Your task to perform on an android device: check battery use Image 0: 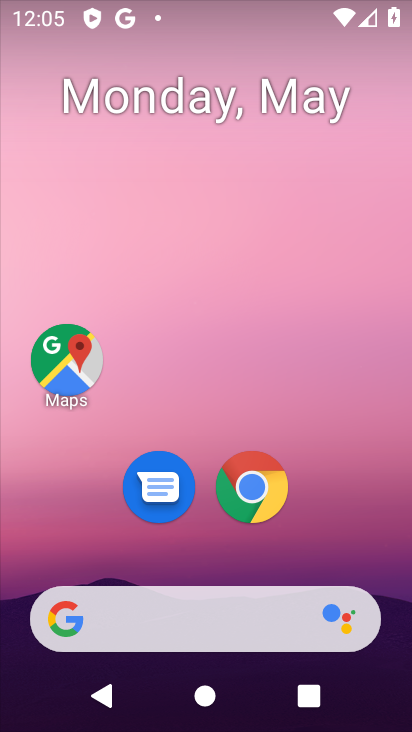
Step 0: drag from (206, 560) to (248, 68)
Your task to perform on an android device: check battery use Image 1: 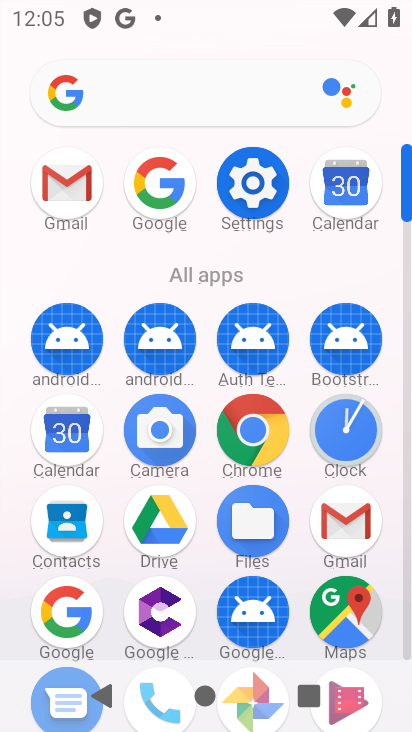
Step 1: click (252, 182)
Your task to perform on an android device: check battery use Image 2: 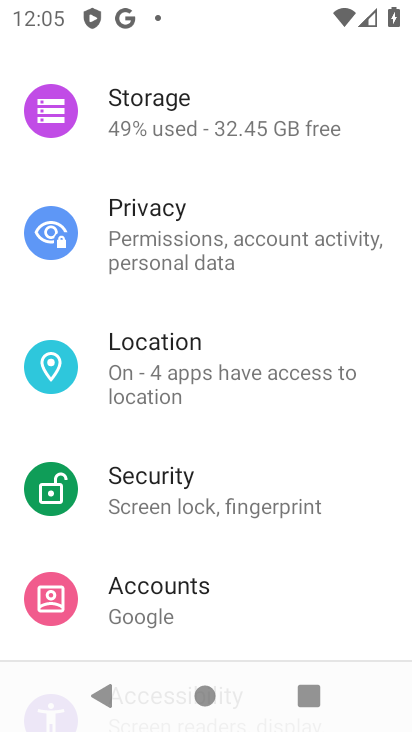
Step 2: drag from (207, 219) to (290, 588)
Your task to perform on an android device: check battery use Image 3: 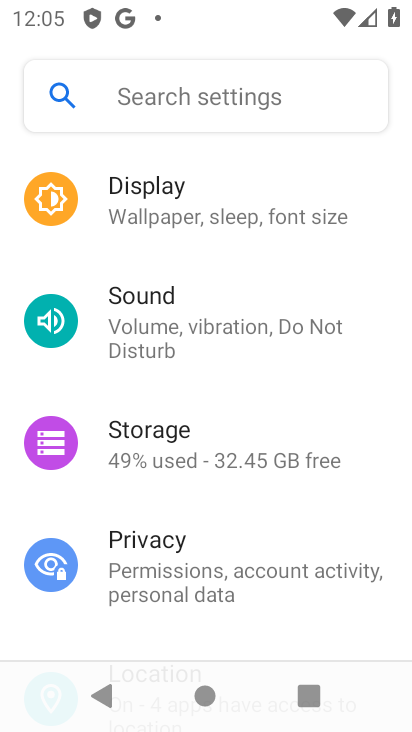
Step 3: drag from (265, 237) to (364, 602)
Your task to perform on an android device: check battery use Image 4: 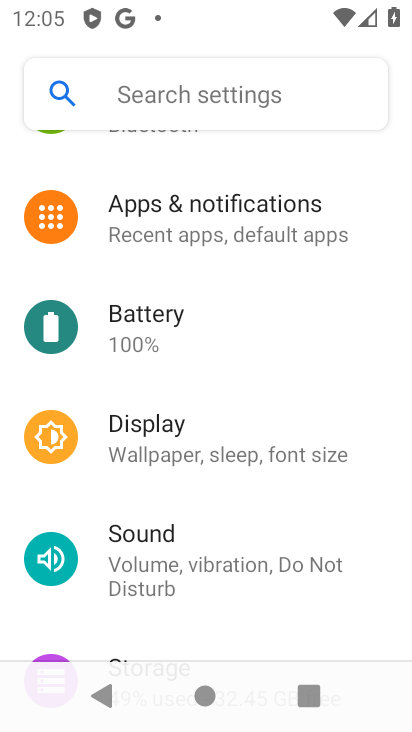
Step 4: click (263, 323)
Your task to perform on an android device: check battery use Image 5: 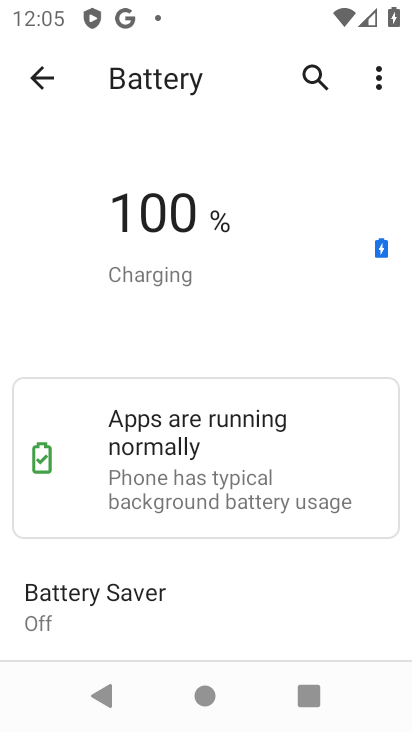
Step 5: click (378, 89)
Your task to perform on an android device: check battery use Image 6: 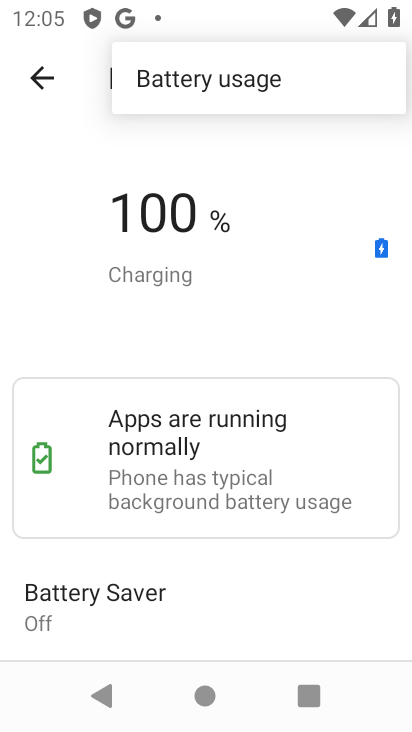
Step 6: click (261, 82)
Your task to perform on an android device: check battery use Image 7: 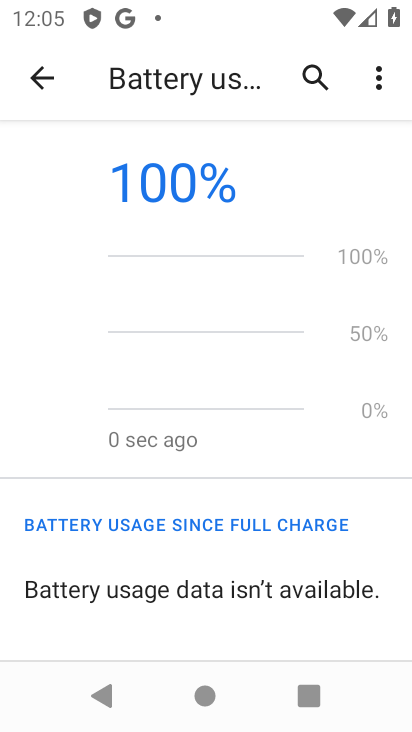
Step 7: task complete